Your task to perform on an android device: Toggle the flashlight Image 0: 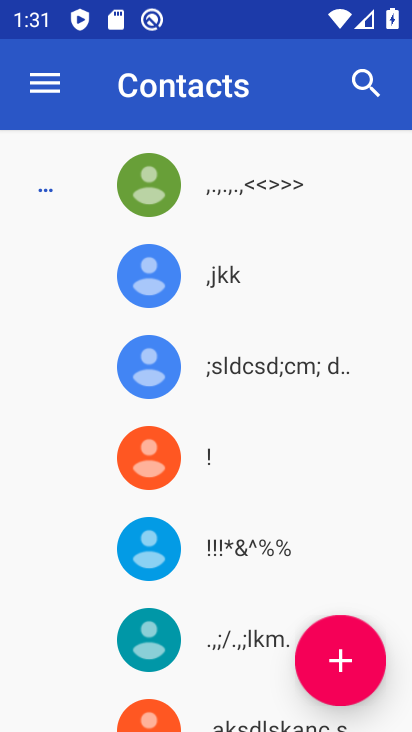
Step 0: press home button
Your task to perform on an android device: Toggle the flashlight Image 1: 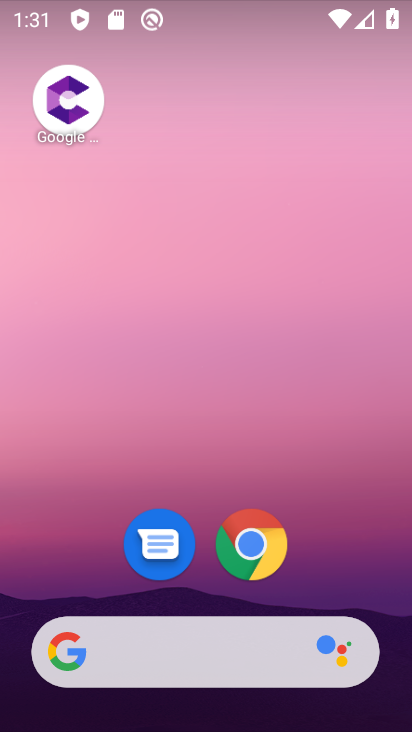
Step 1: task complete